Your task to perform on an android device: open app "Microsoft Excel" (install if not already installed) and enter user name: "kidnappers@icloud.com" and password: "Bessemerizes" Image 0: 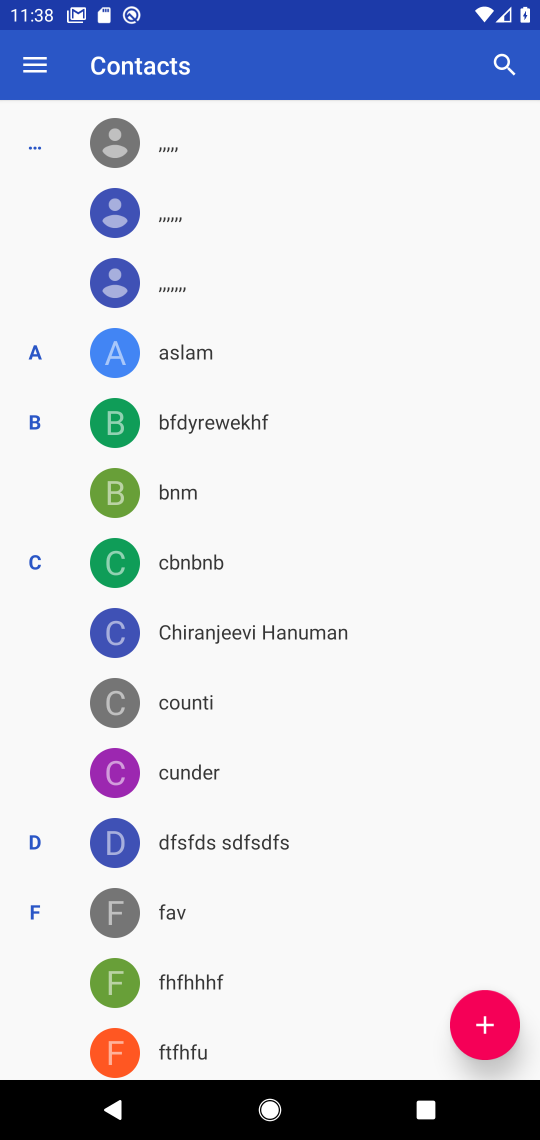
Step 0: press home button
Your task to perform on an android device: open app "Microsoft Excel" (install if not already installed) and enter user name: "kidnappers@icloud.com" and password: "Bessemerizes" Image 1: 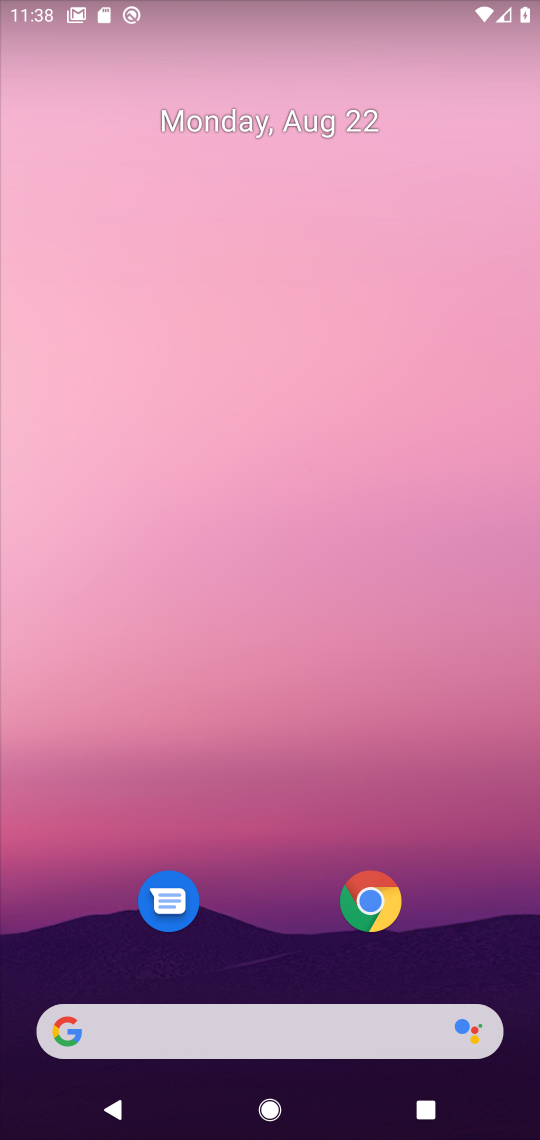
Step 1: drag from (263, 954) to (337, 9)
Your task to perform on an android device: open app "Microsoft Excel" (install if not already installed) and enter user name: "kidnappers@icloud.com" and password: "Bessemerizes" Image 2: 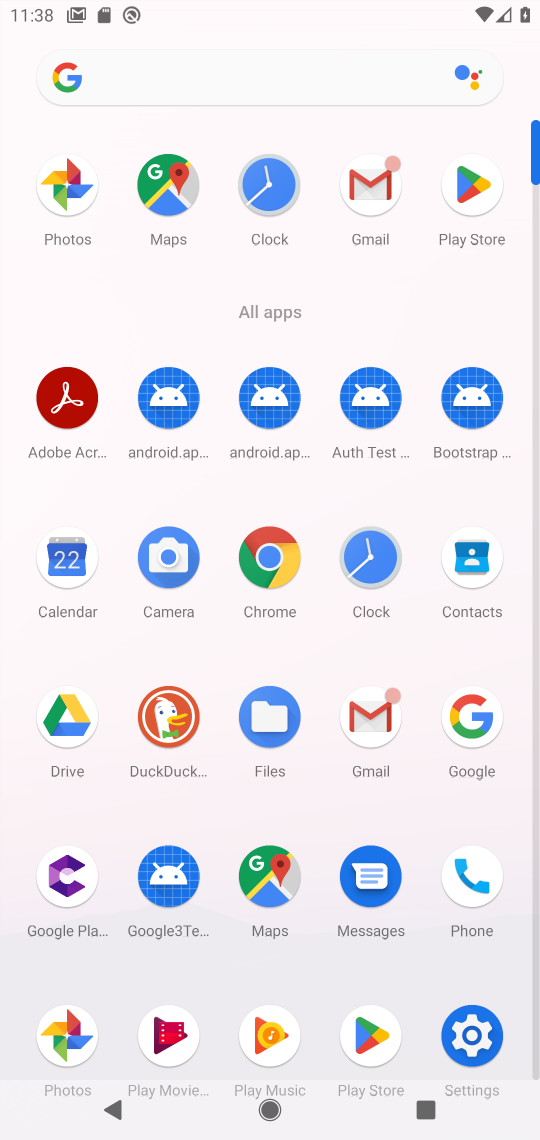
Step 2: click (480, 206)
Your task to perform on an android device: open app "Microsoft Excel" (install if not already installed) and enter user name: "kidnappers@icloud.com" and password: "Bessemerizes" Image 3: 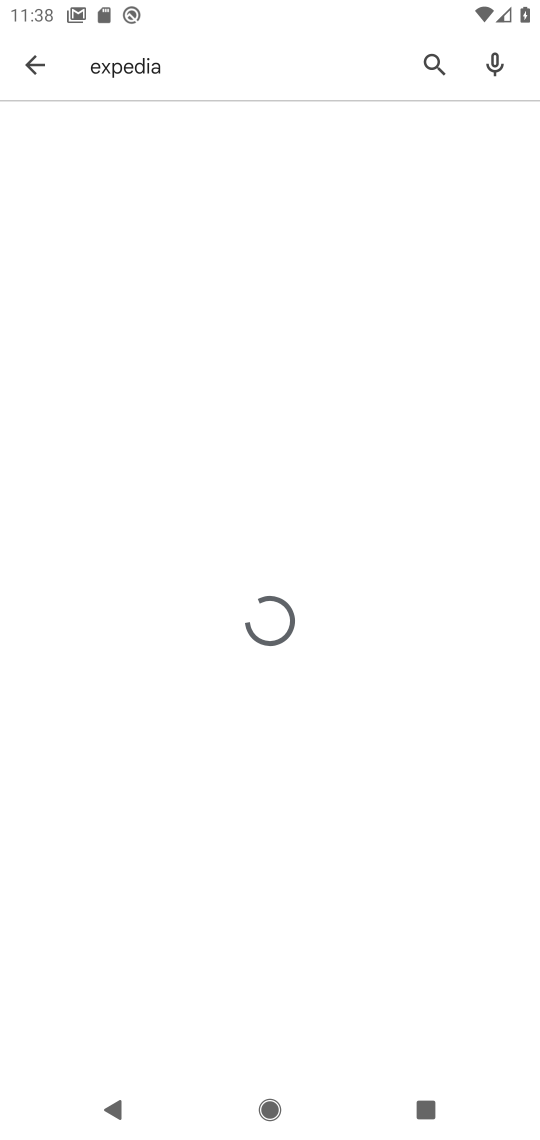
Step 3: click (186, 82)
Your task to perform on an android device: open app "Microsoft Excel" (install if not already installed) and enter user name: "kidnappers@icloud.com" and password: "Bessemerizes" Image 4: 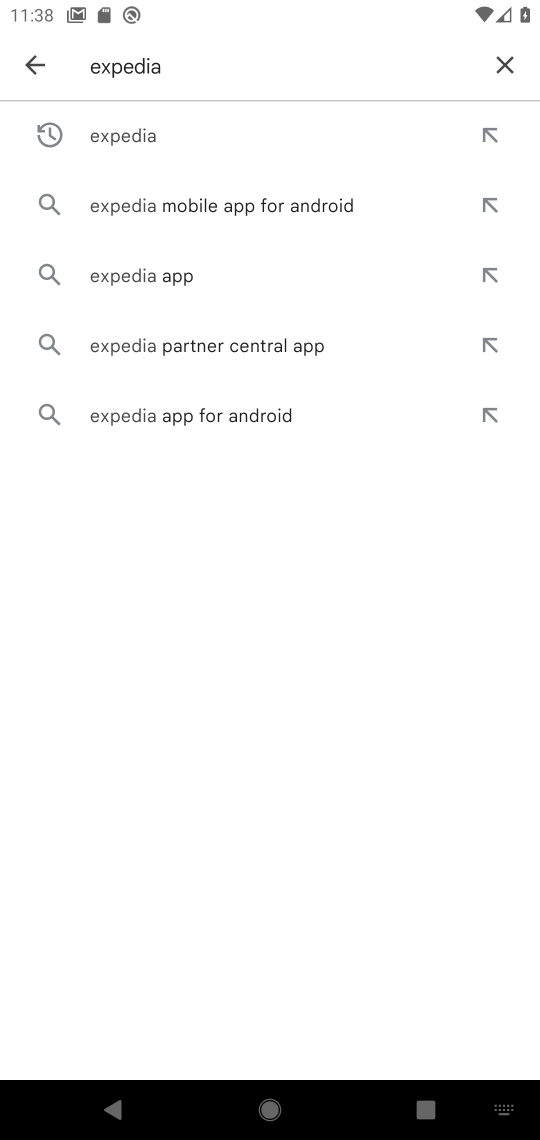
Step 4: click (508, 63)
Your task to perform on an android device: open app "Microsoft Excel" (install if not already installed) and enter user name: "kidnappers@icloud.com" and password: "Bessemerizes" Image 5: 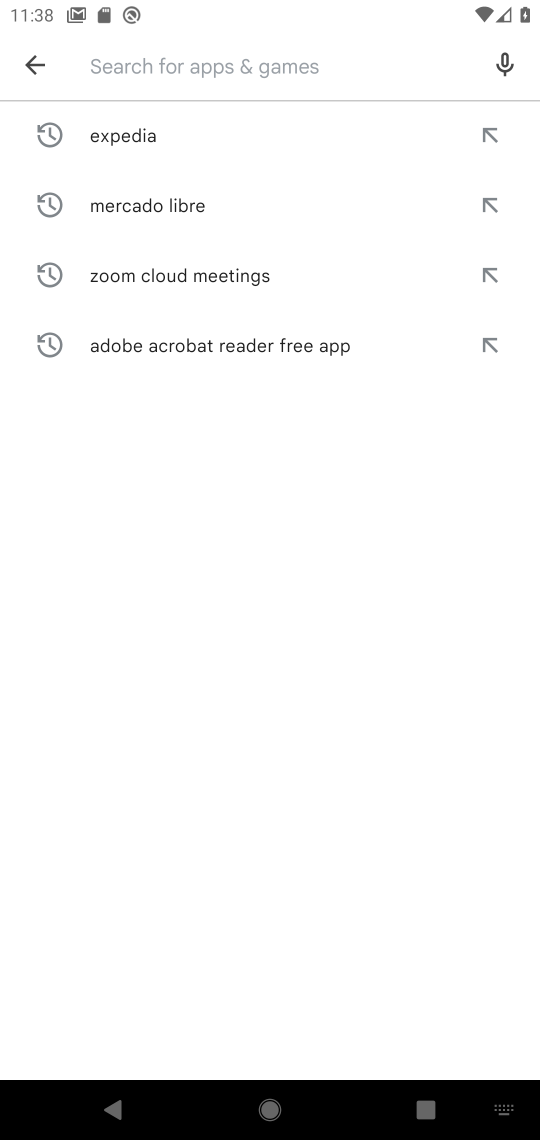
Step 5: type "microsoft excel"
Your task to perform on an android device: open app "Microsoft Excel" (install if not already installed) and enter user name: "kidnappers@icloud.com" and password: "Bessemerizes" Image 6: 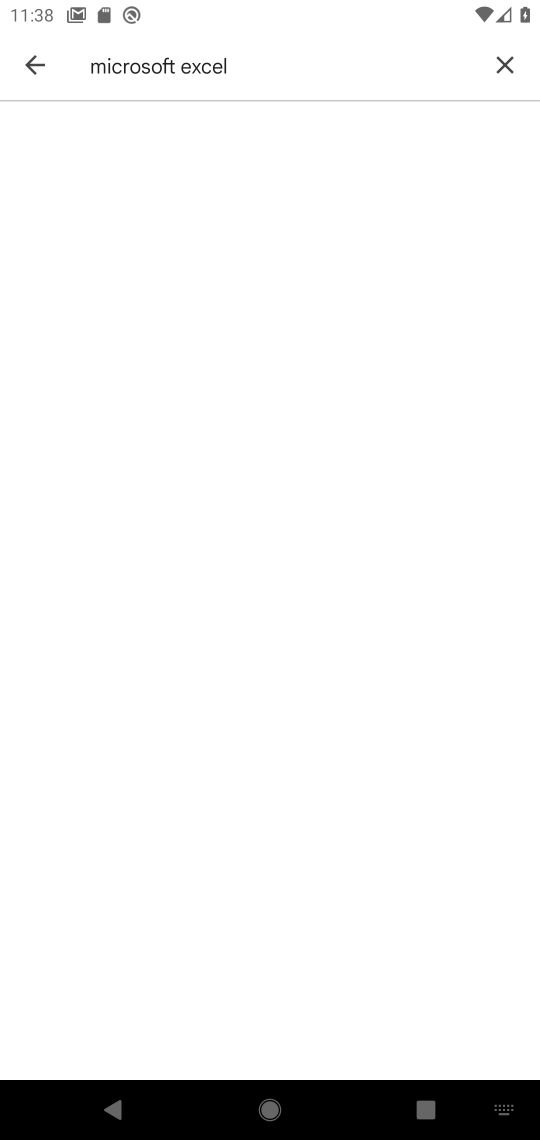
Step 6: click (205, 144)
Your task to perform on an android device: open app "Microsoft Excel" (install if not already installed) and enter user name: "kidnappers@icloud.com" and password: "Bessemerizes" Image 7: 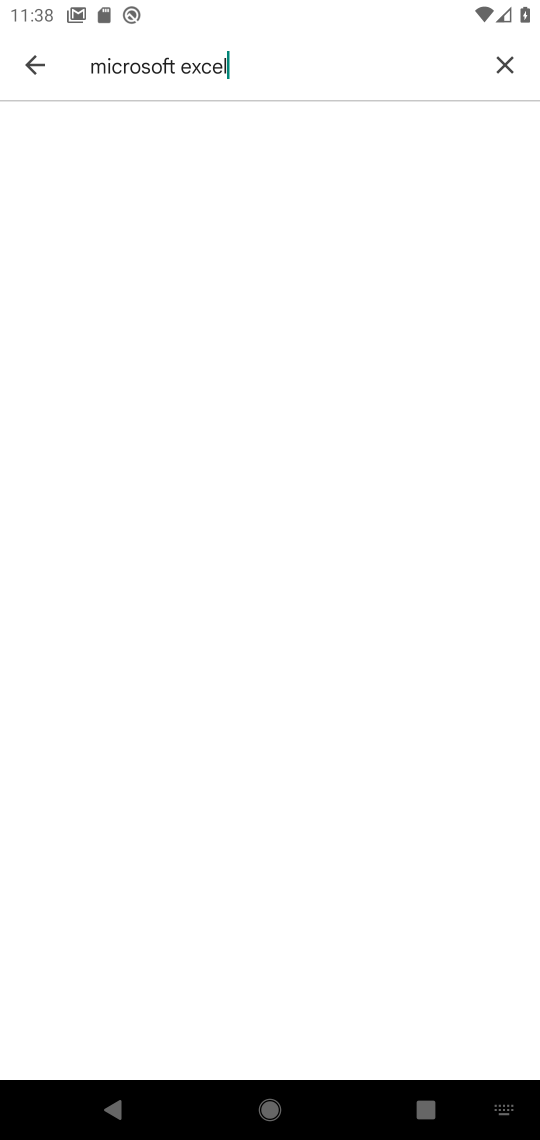
Step 7: click (206, 146)
Your task to perform on an android device: open app "Microsoft Excel" (install if not already installed) and enter user name: "kidnappers@icloud.com" and password: "Bessemerizes" Image 8: 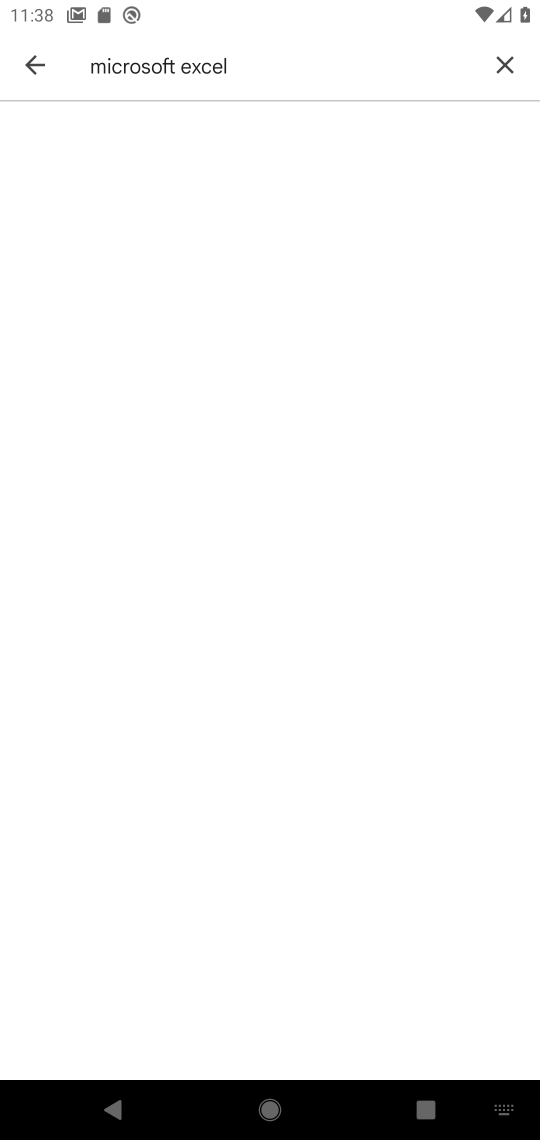
Step 8: click (22, 62)
Your task to perform on an android device: open app "Microsoft Excel" (install if not already installed) and enter user name: "kidnappers@icloud.com" and password: "Bessemerizes" Image 9: 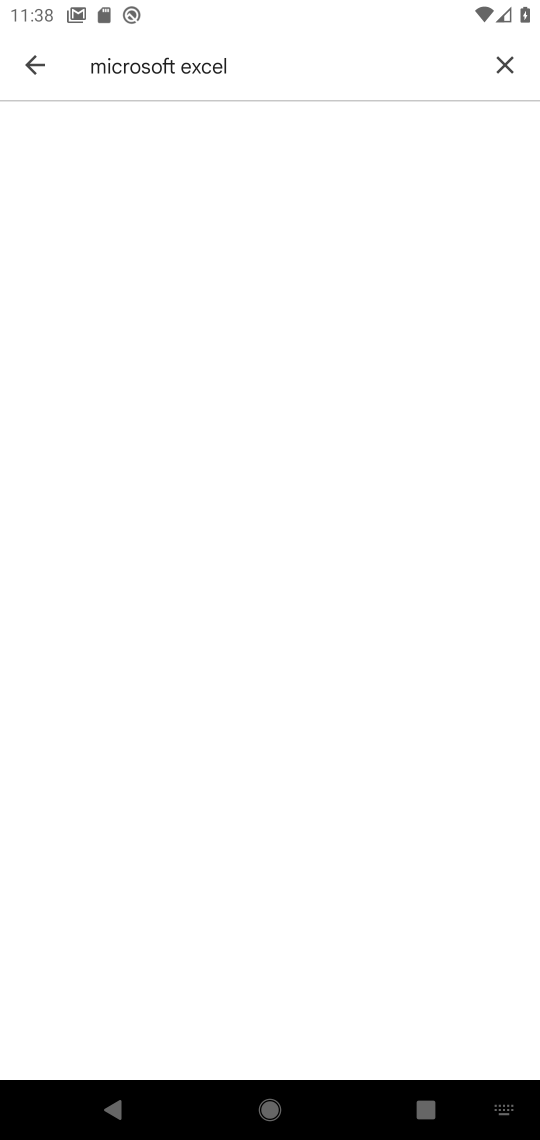
Step 9: click (506, 64)
Your task to perform on an android device: open app "Microsoft Excel" (install if not already installed) and enter user name: "kidnappers@icloud.com" and password: "Bessemerizes" Image 10: 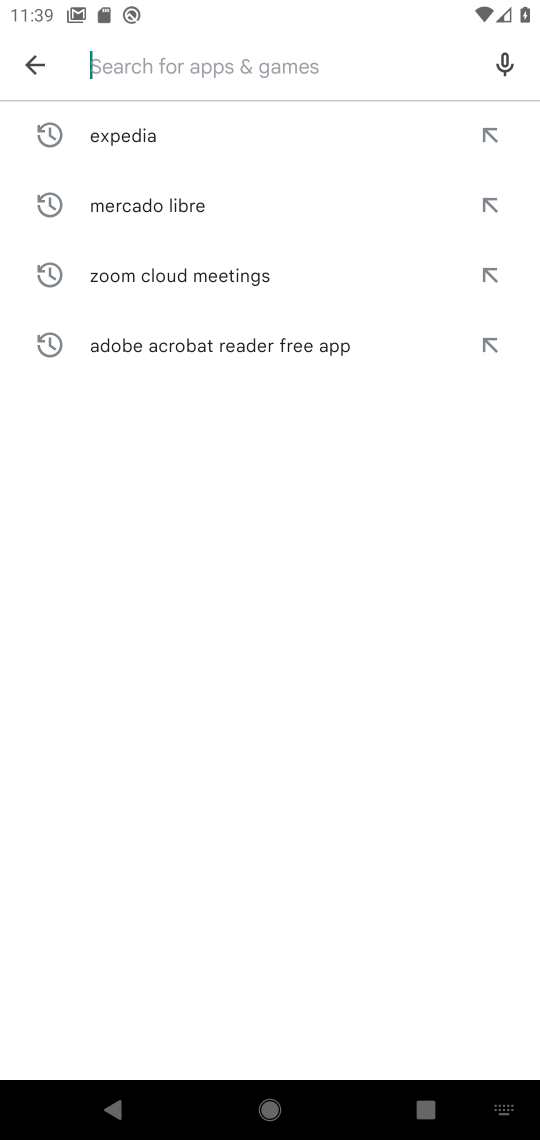
Step 10: type "microsoft excel"
Your task to perform on an android device: open app "Microsoft Excel" (install if not already installed) and enter user name: "kidnappers@icloud.com" and password: "Bessemerizes" Image 11: 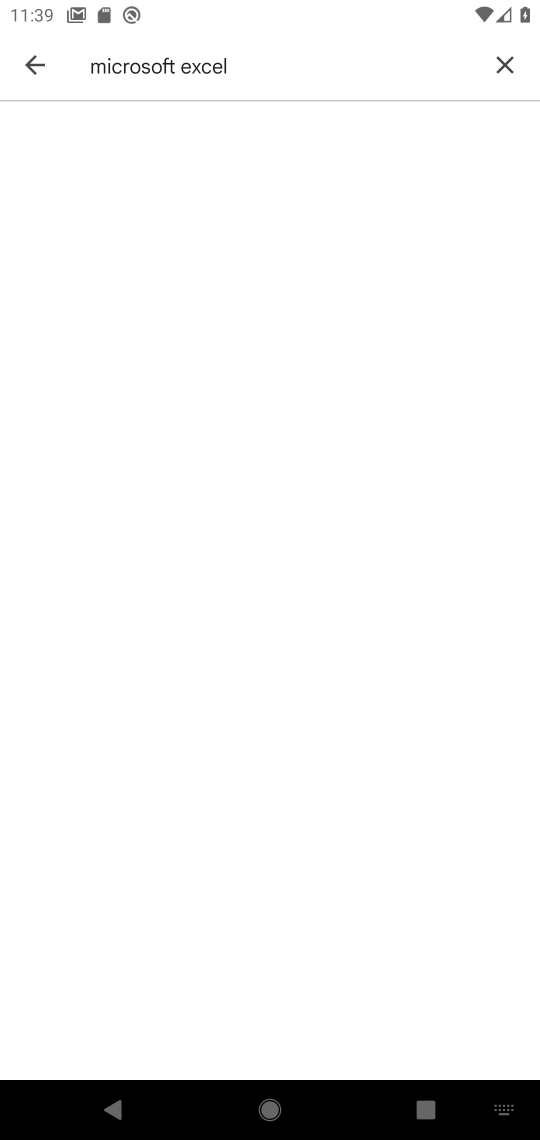
Step 11: click (130, 128)
Your task to perform on an android device: open app "Microsoft Excel" (install if not already installed) and enter user name: "kidnappers@icloud.com" and password: "Bessemerizes" Image 12: 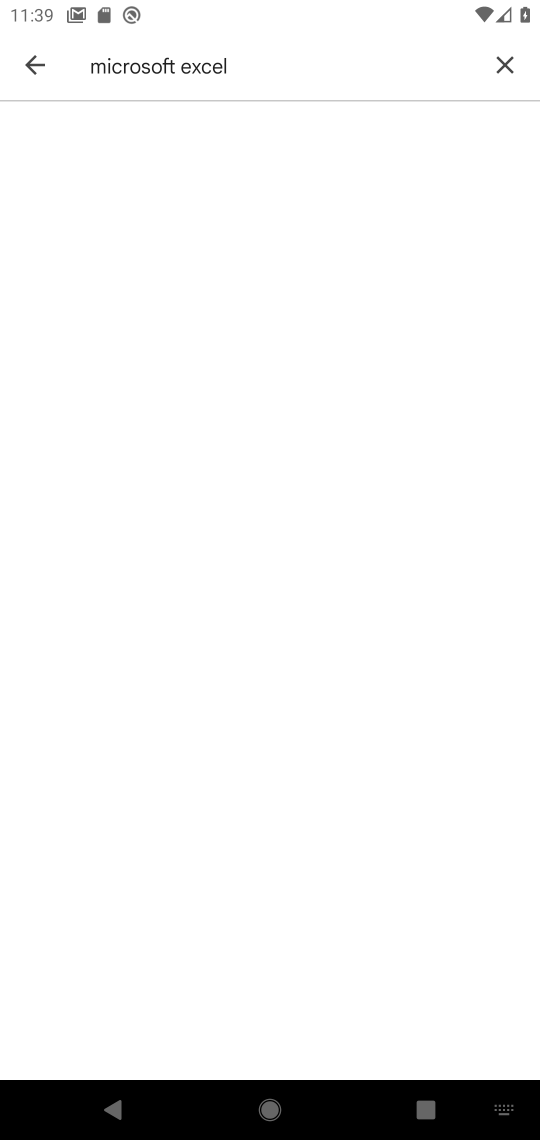
Step 12: click (247, 151)
Your task to perform on an android device: open app "Microsoft Excel" (install if not already installed) and enter user name: "kidnappers@icloud.com" and password: "Bessemerizes" Image 13: 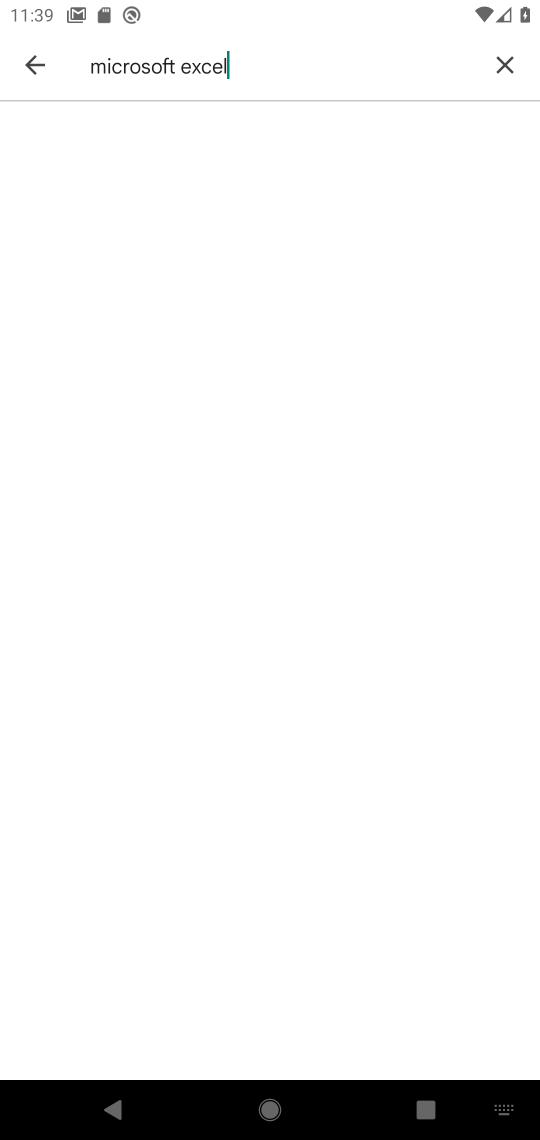
Step 13: click (250, 120)
Your task to perform on an android device: open app "Microsoft Excel" (install if not already installed) and enter user name: "kidnappers@icloud.com" and password: "Bessemerizes" Image 14: 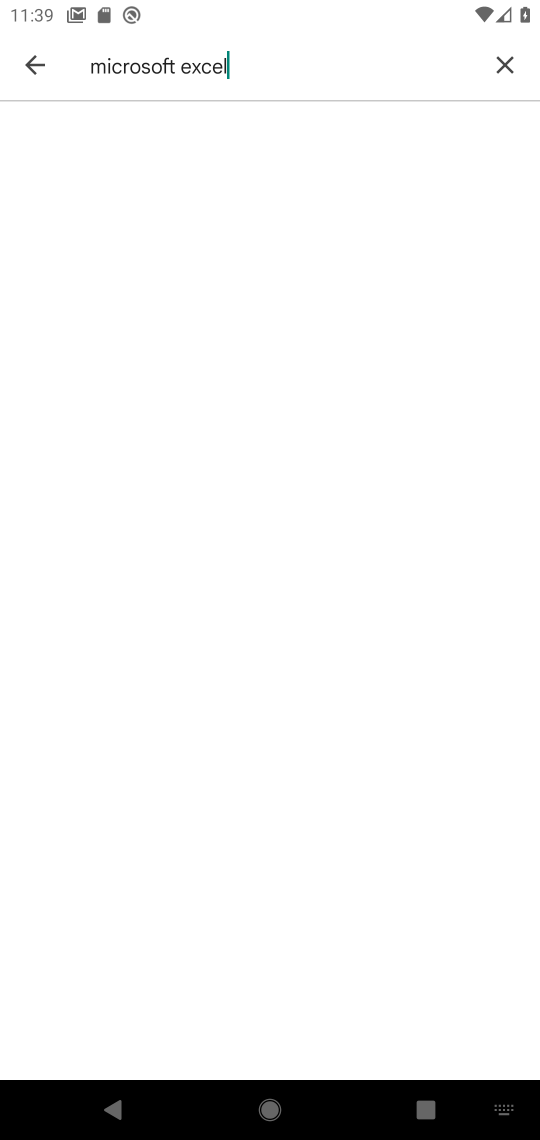
Step 14: task complete